Your task to perform on an android device: Open Amazon Image 0: 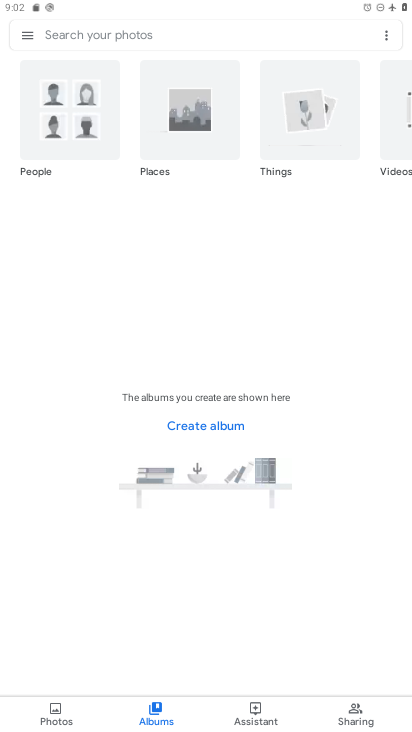
Step 0: press home button
Your task to perform on an android device: Open Amazon Image 1: 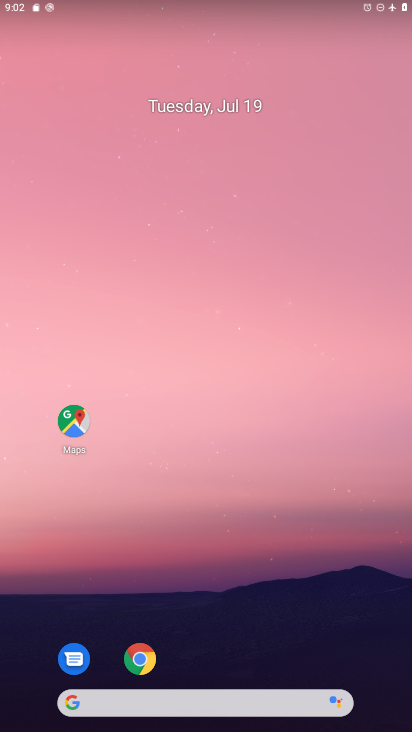
Step 1: click (141, 654)
Your task to perform on an android device: Open Amazon Image 2: 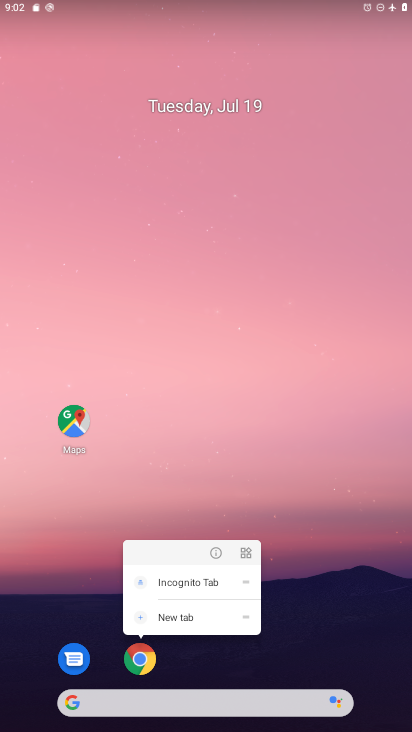
Step 2: click (141, 654)
Your task to perform on an android device: Open Amazon Image 3: 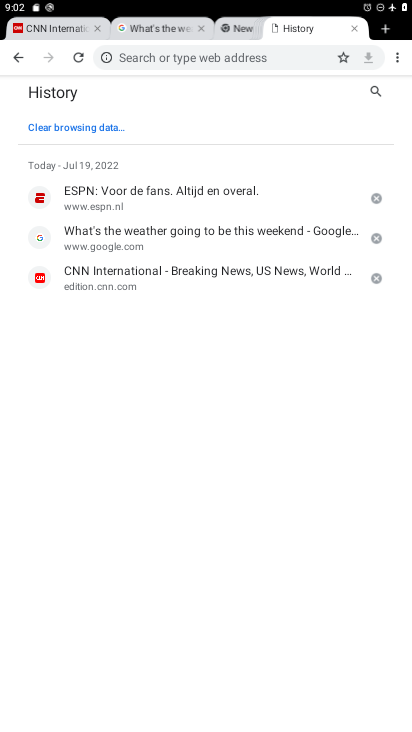
Step 3: click (384, 18)
Your task to perform on an android device: Open Amazon Image 4: 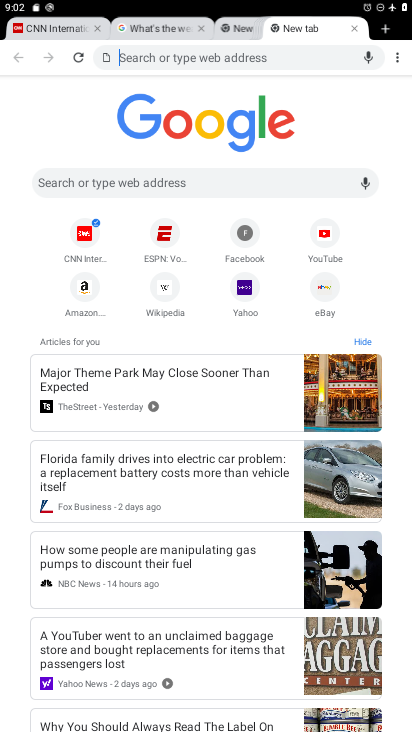
Step 4: click (82, 292)
Your task to perform on an android device: Open Amazon Image 5: 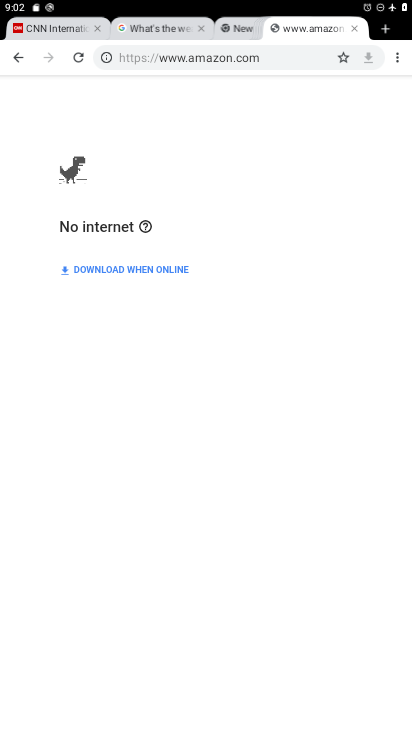
Step 5: task complete